Your task to perform on an android device: See recent photos Image 0: 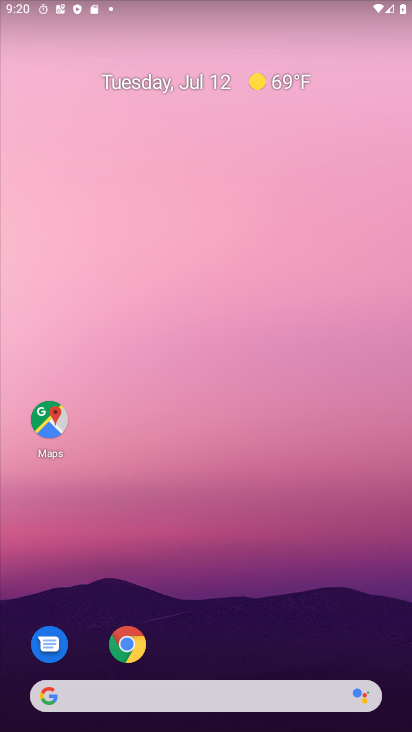
Step 0: press home button
Your task to perform on an android device: See recent photos Image 1: 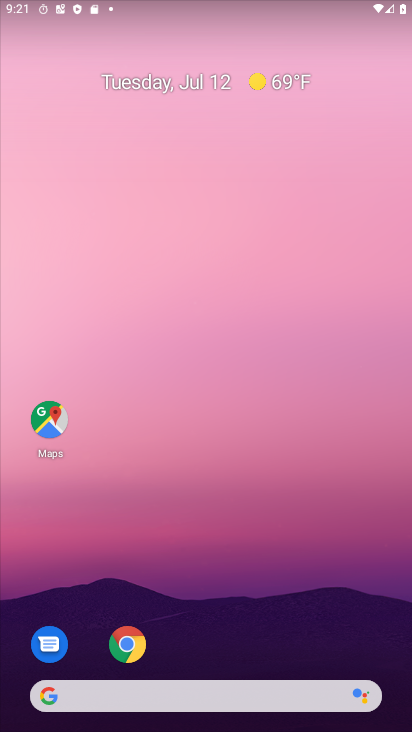
Step 1: drag from (213, 656) to (218, 62)
Your task to perform on an android device: See recent photos Image 2: 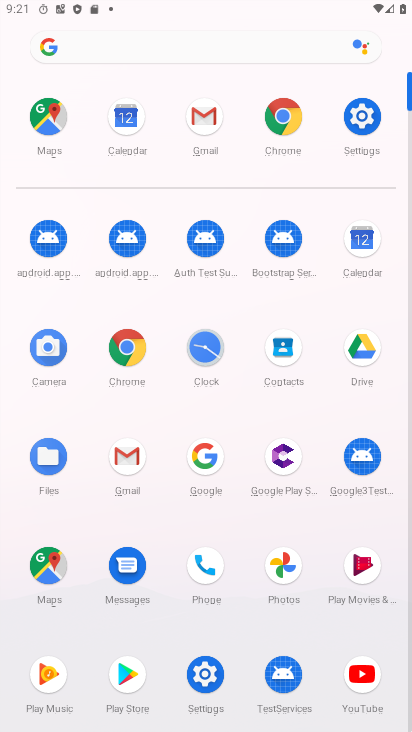
Step 2: click (286, 554)
Your task to perform on an android device: See recent photos Image 3: 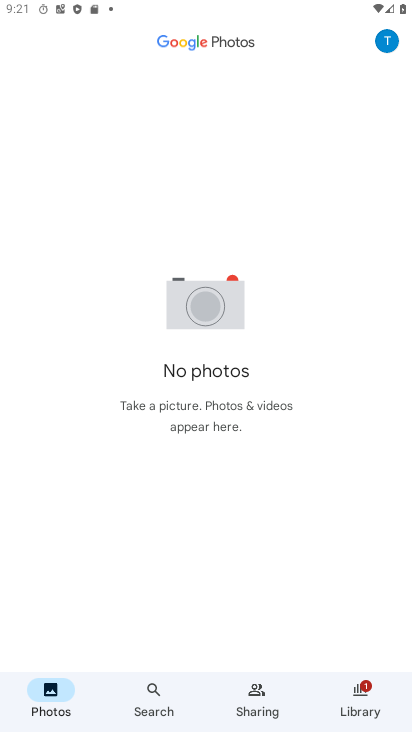
Step 3: click (55, 690)
Your task to perform on an android device: See recent photos Image 4: 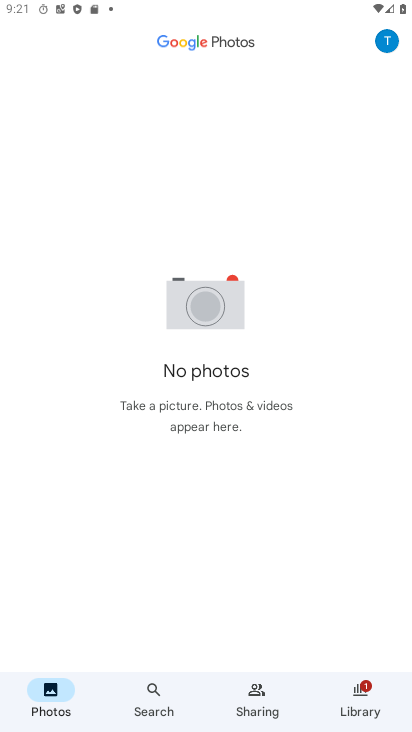
Step 4: task complete